Your task to perform on an android device: open app "DoorDash - Food Delivery" Image 0: 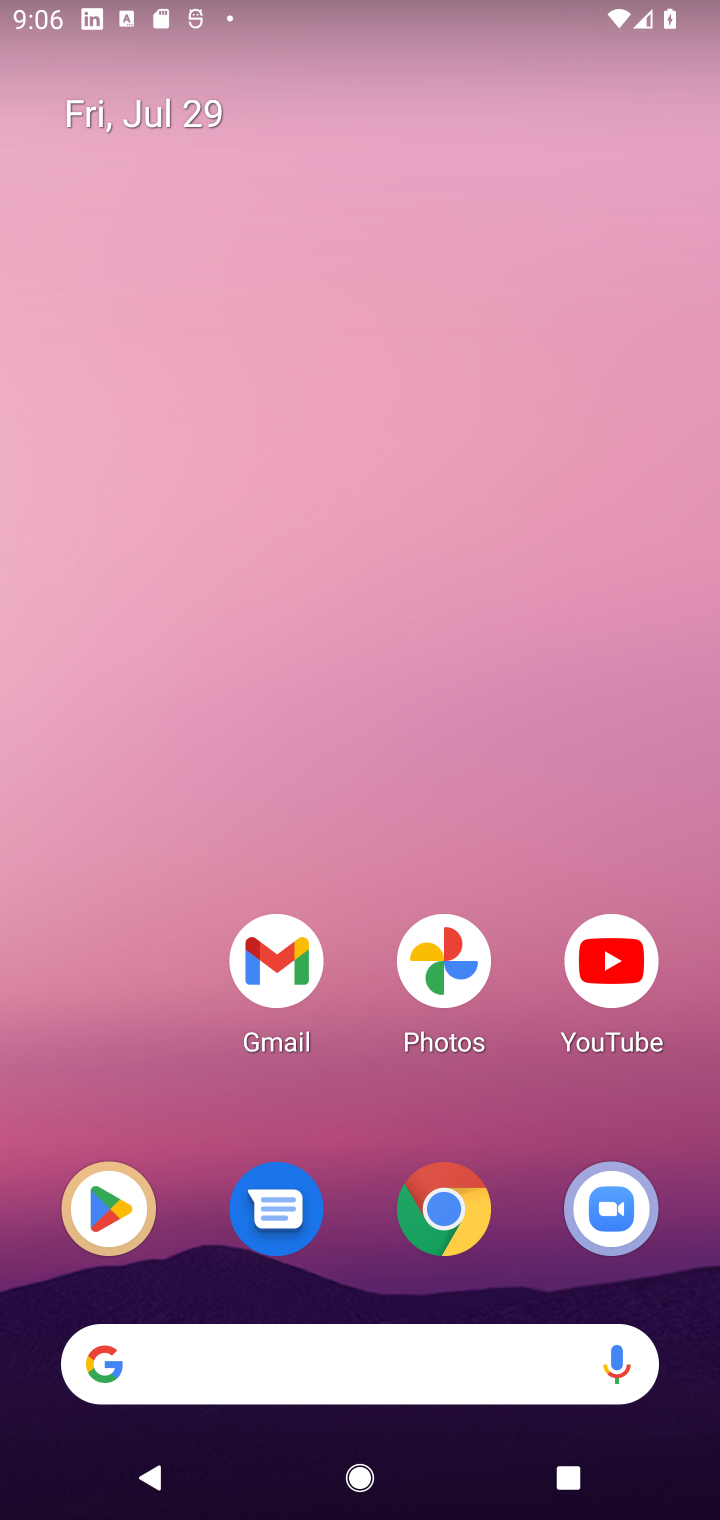
Step 0: click (108, 1202)
Your task to perform on an android device: open app "DoorDash - Food Delivery" Image 1: 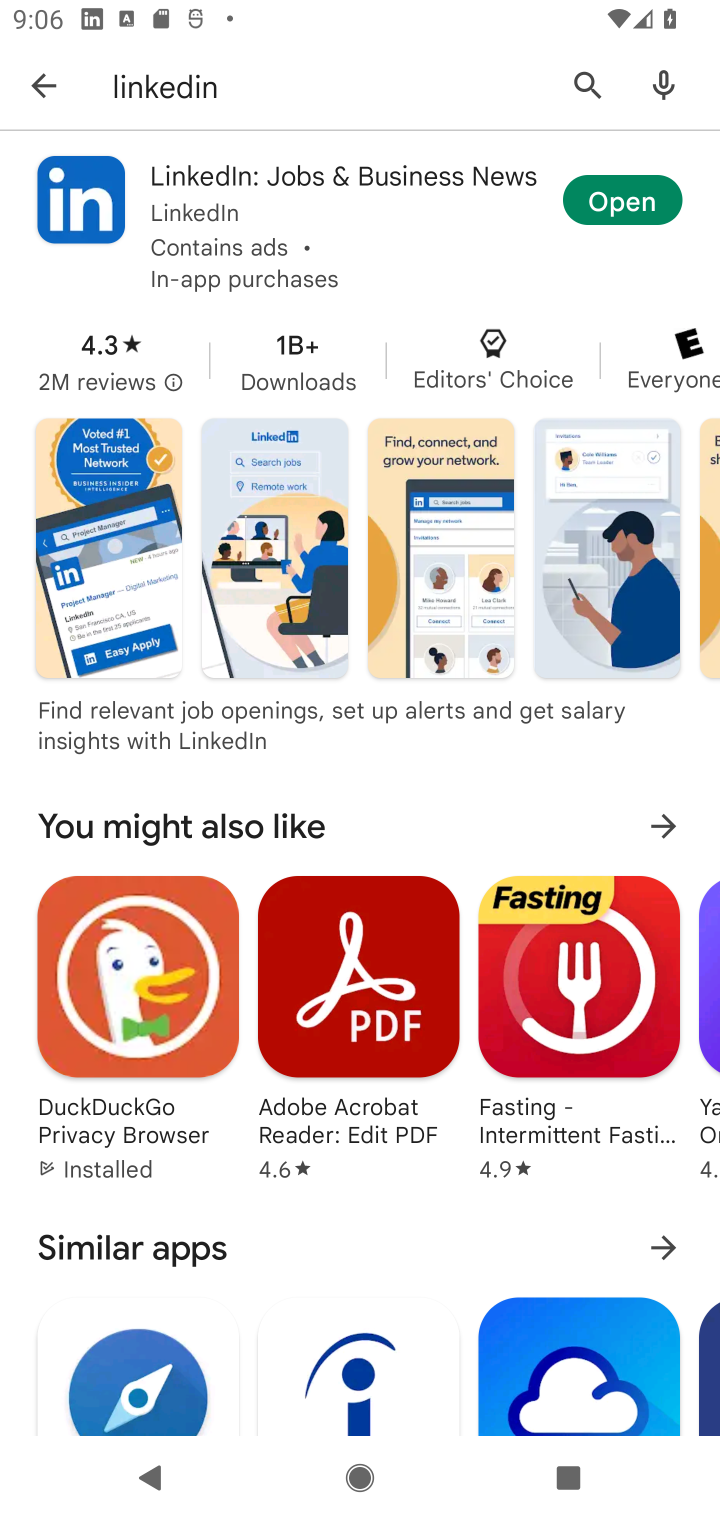
Step 1: click (590, 87)
Your task to perform on an android device: open app "DoorDash - Food Delivery" Image 2: 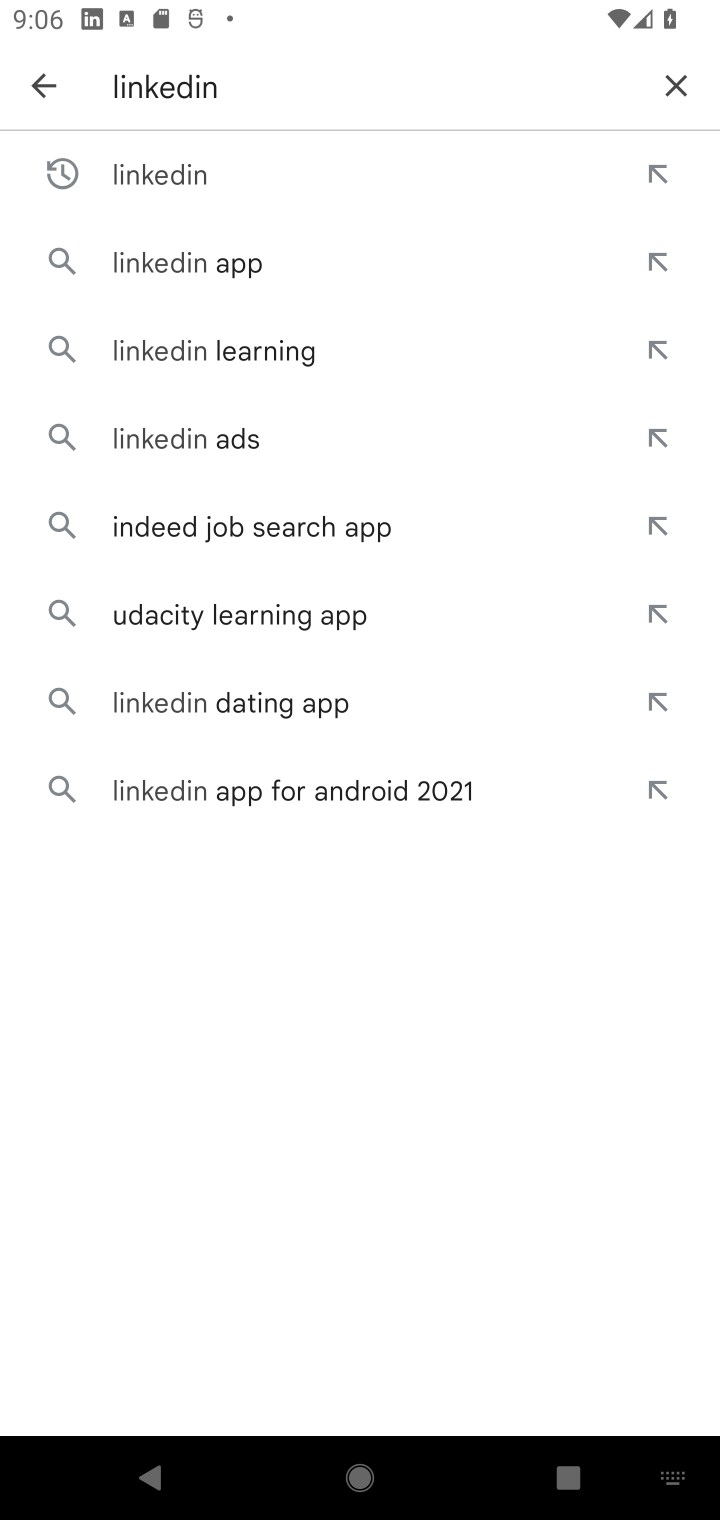
Step 2: click (670, 81)
Your task to perform on an android device: open app "DoorDash - Food Delivery" Image 3: 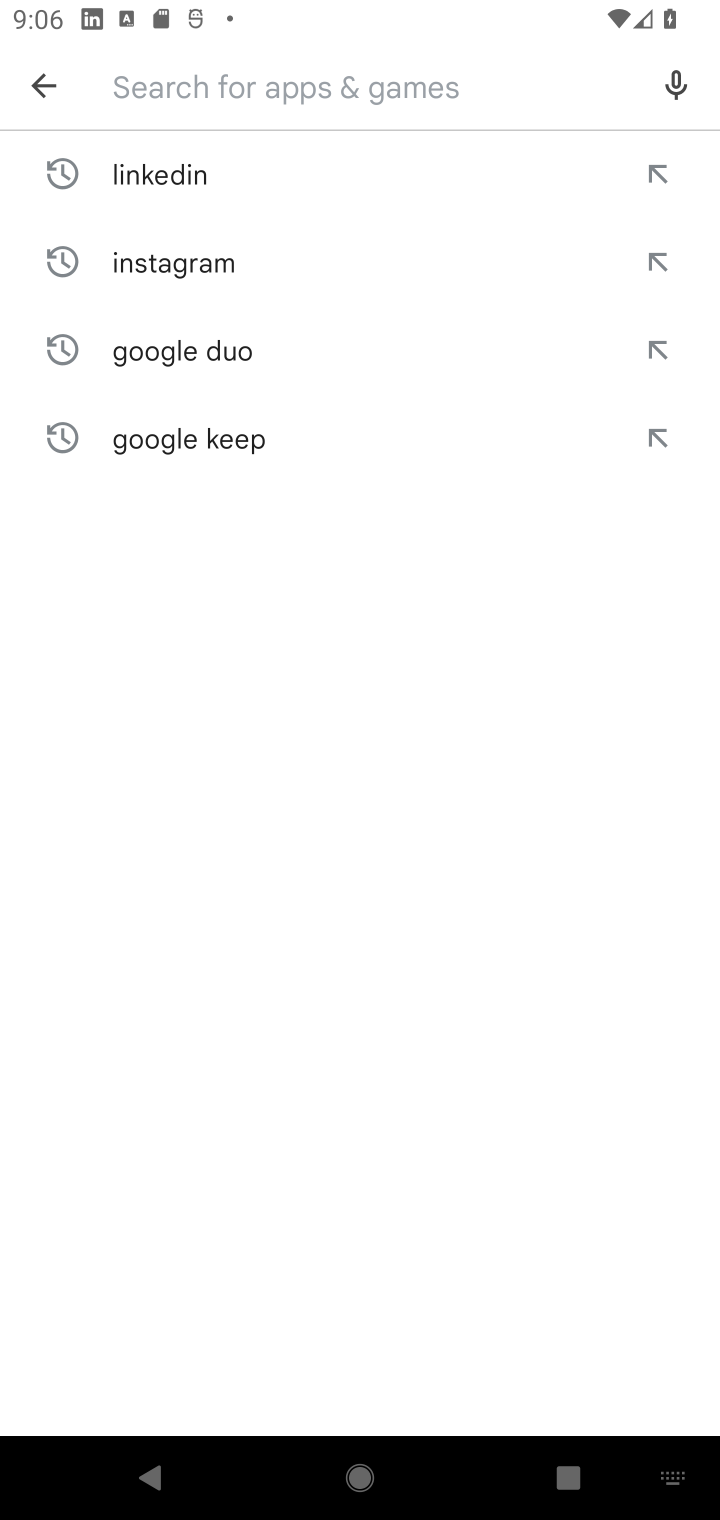
Step 3: type "DoorDash - Food Delivery"
Your task to perform on an android device: open app "DoorDash - Food Delivery" Image 4: 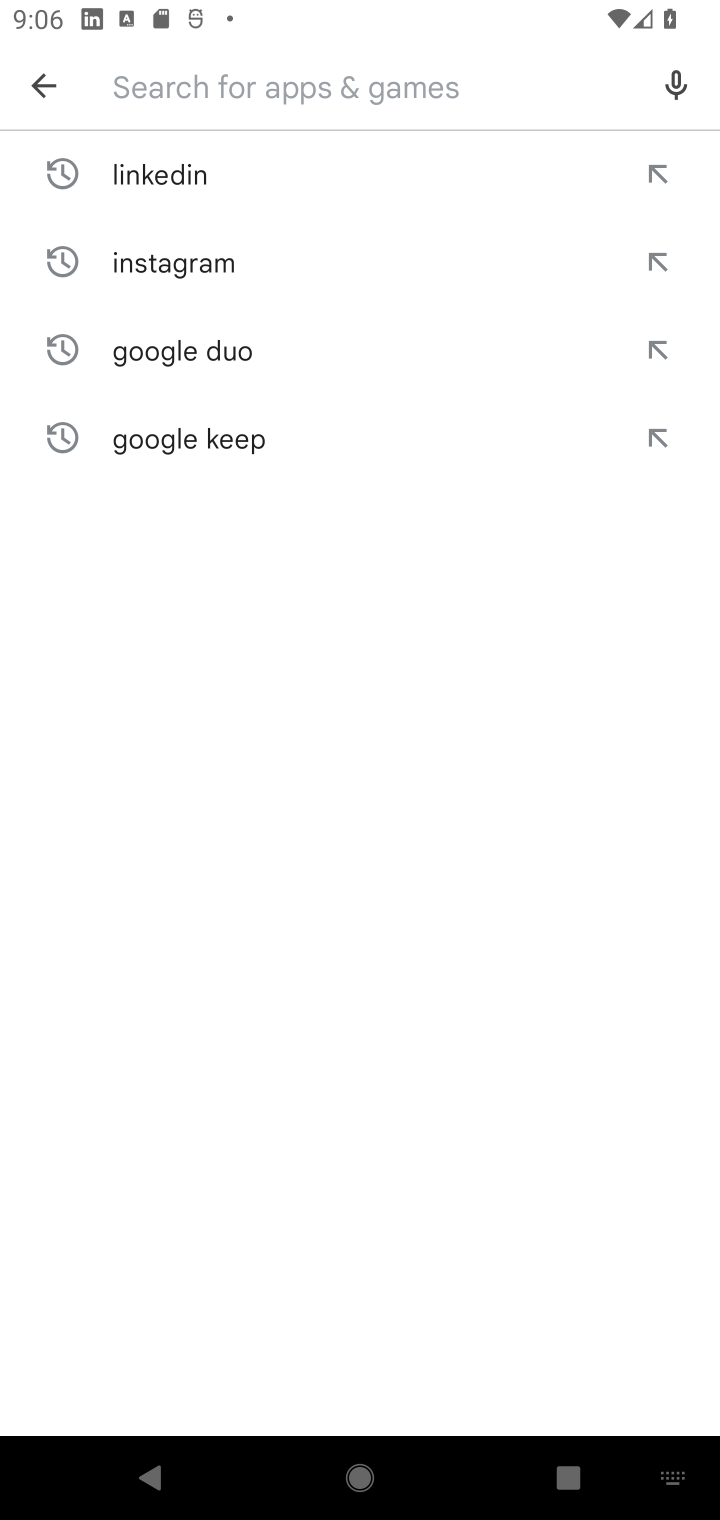
Step 4: click (273, 85)
Your task to perform on an android device: open app "DoorDash - Food Delivery" Image 5: 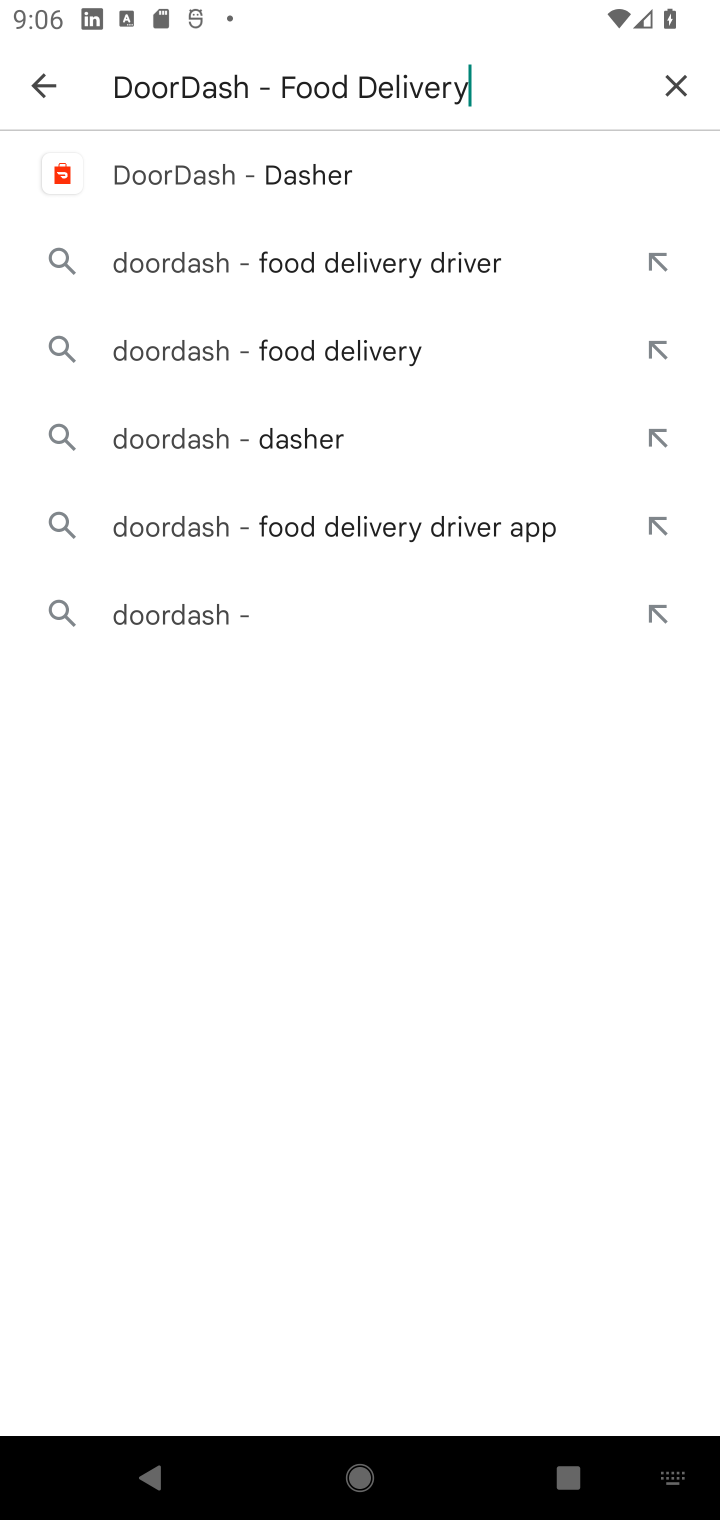
Step 5: type "DoorDash - Food Delivery"
Your task to perform on an android device: open app "DoorDash - Food Delivery" Image 6: 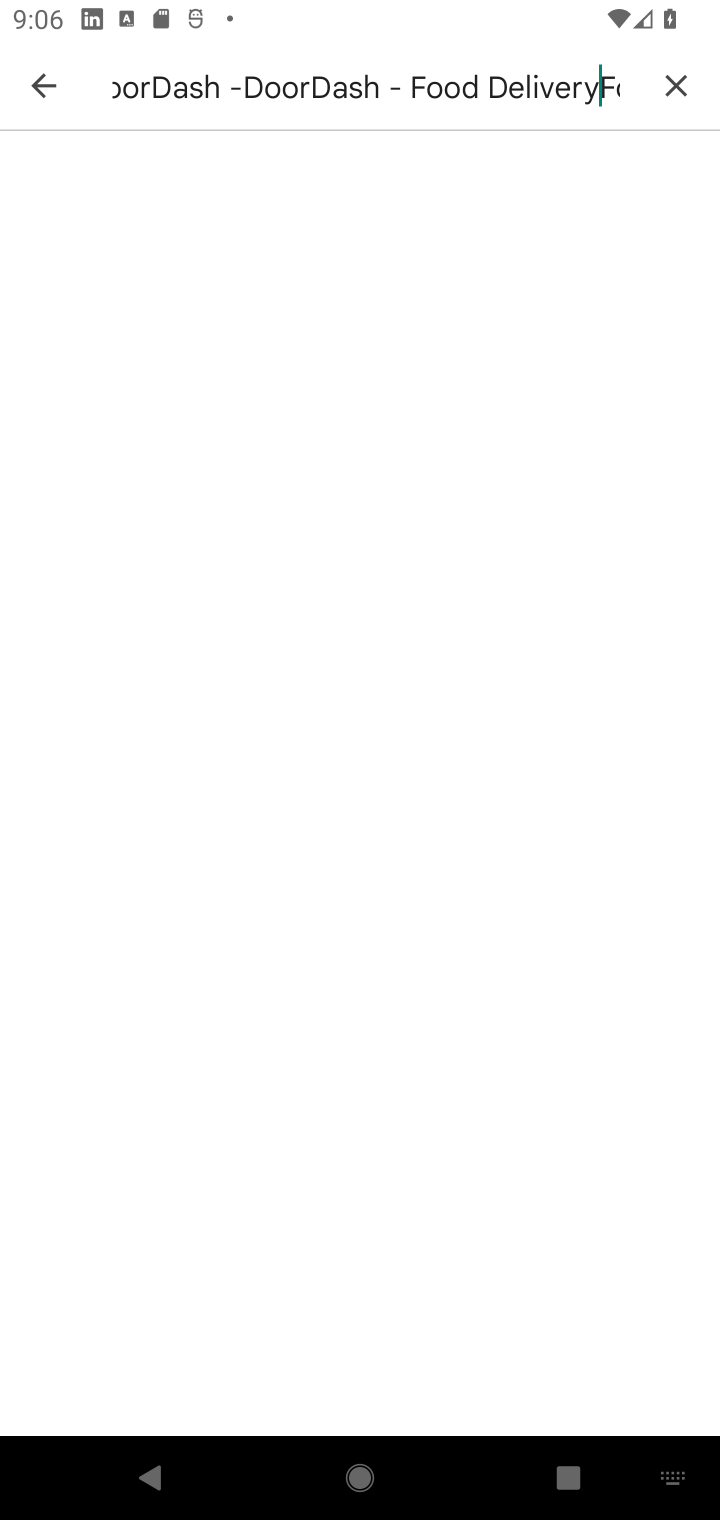
Step 6: click (681, 87)
Your task to perform on an android device: open app "DoorDash - Food Delivery" Image 7: 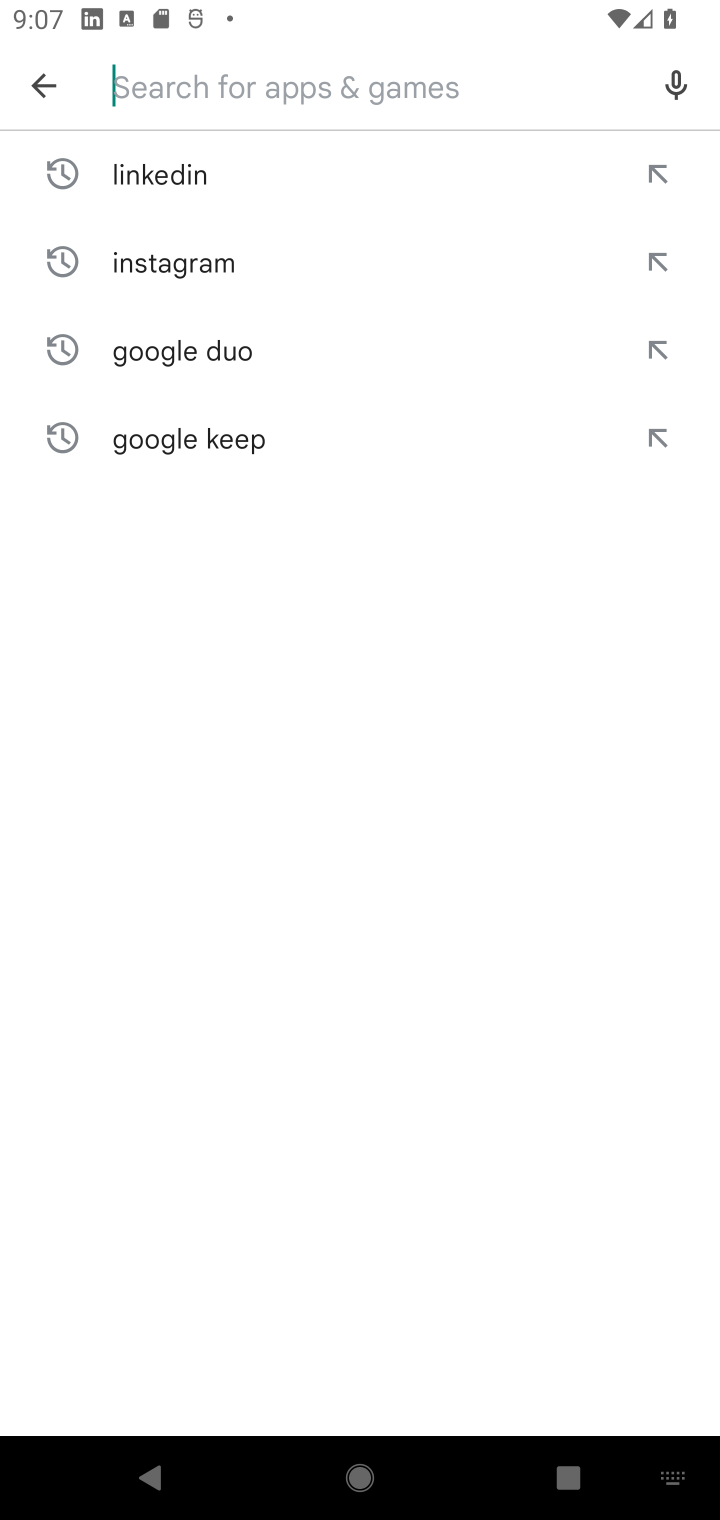
Step 7: click (218, 90)
Your task to perform on an android device: open app "DoorDash - Food Delivery" Image 8: 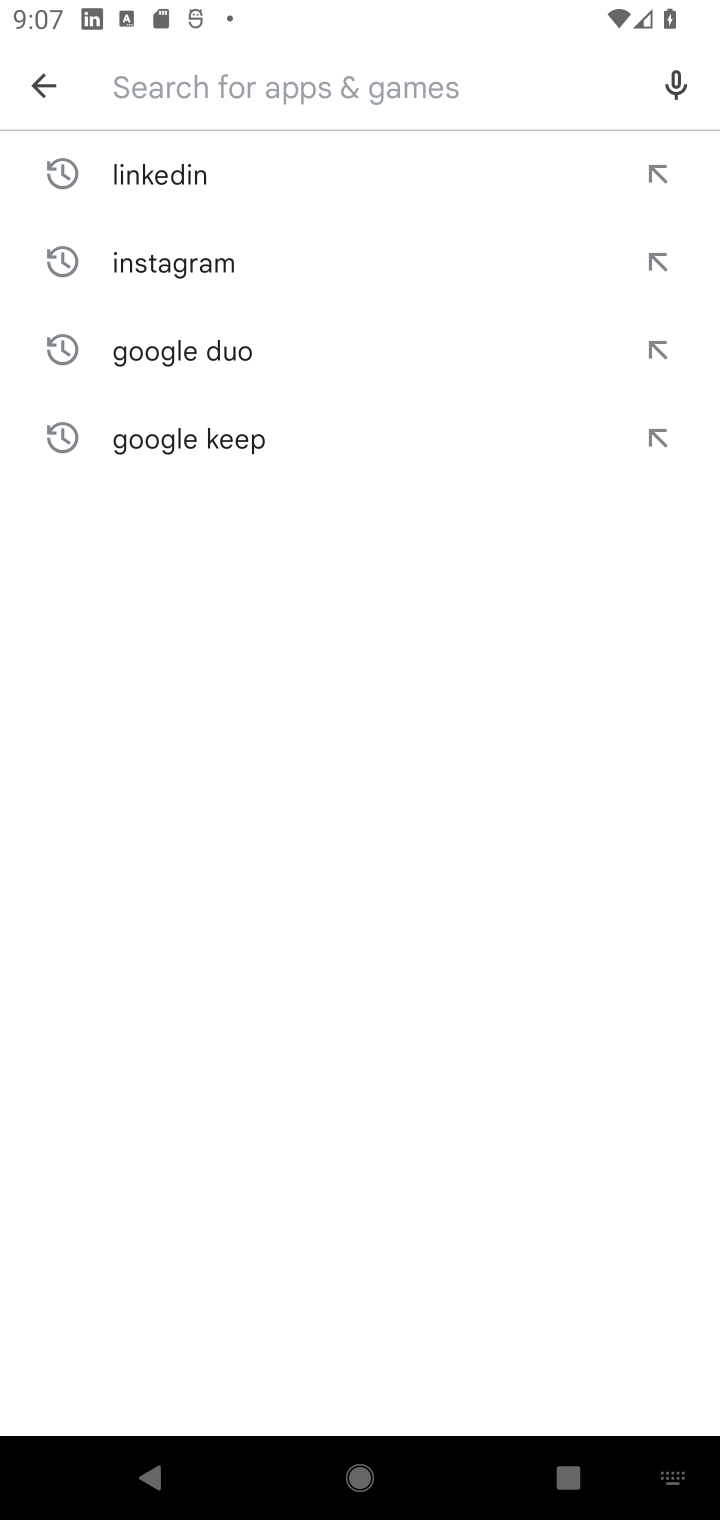
Step 8: type "DoorDash - Food Delivery"
Your task to perform on an android device: open app "DoorDash - Food Delivery" Image 9: 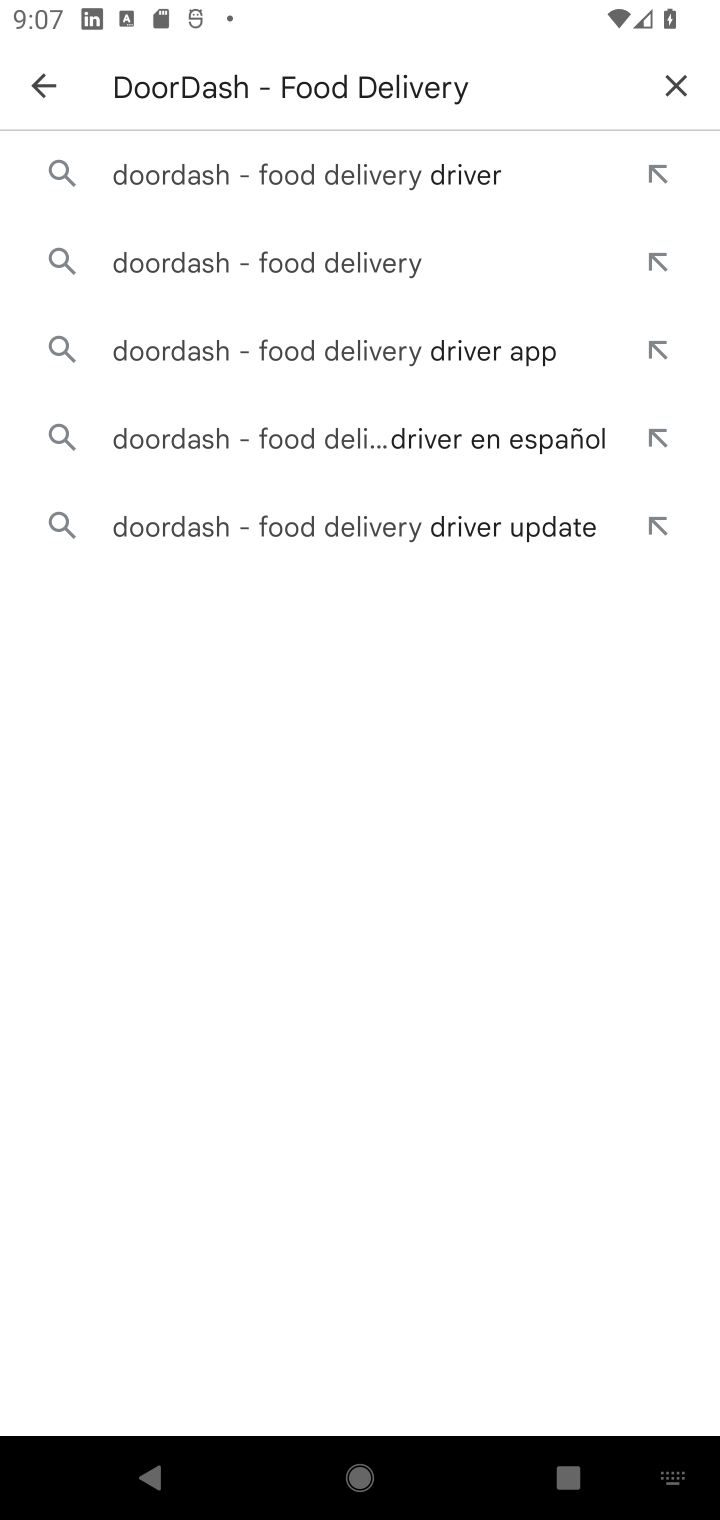
Step 9: click (248, 279)
Your task to perform on an android device: open app "DoorDash - Food Delivery" Image 10: 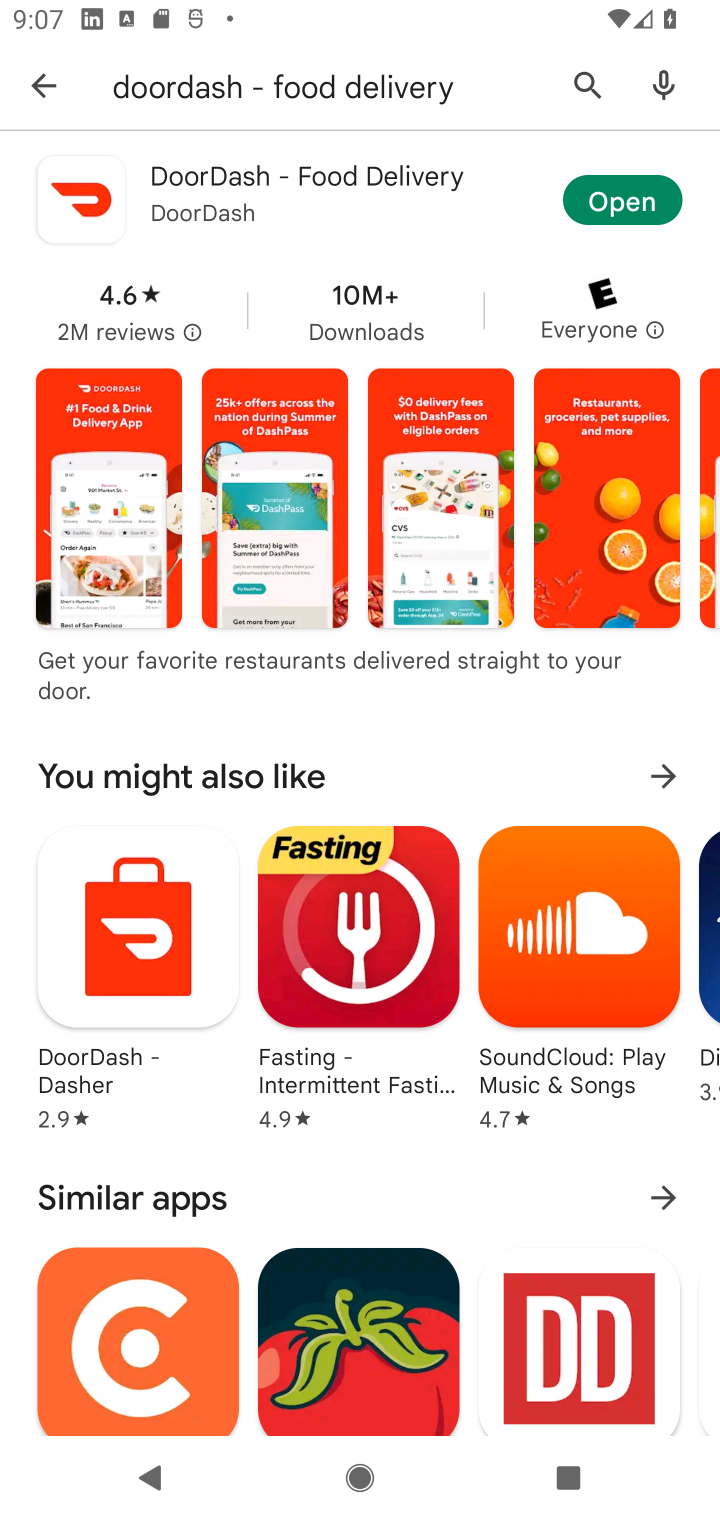
Step 10: click (636, 208)
Your task to perform on an android device: open app "DoorDash - Food Delivery" Image 11: 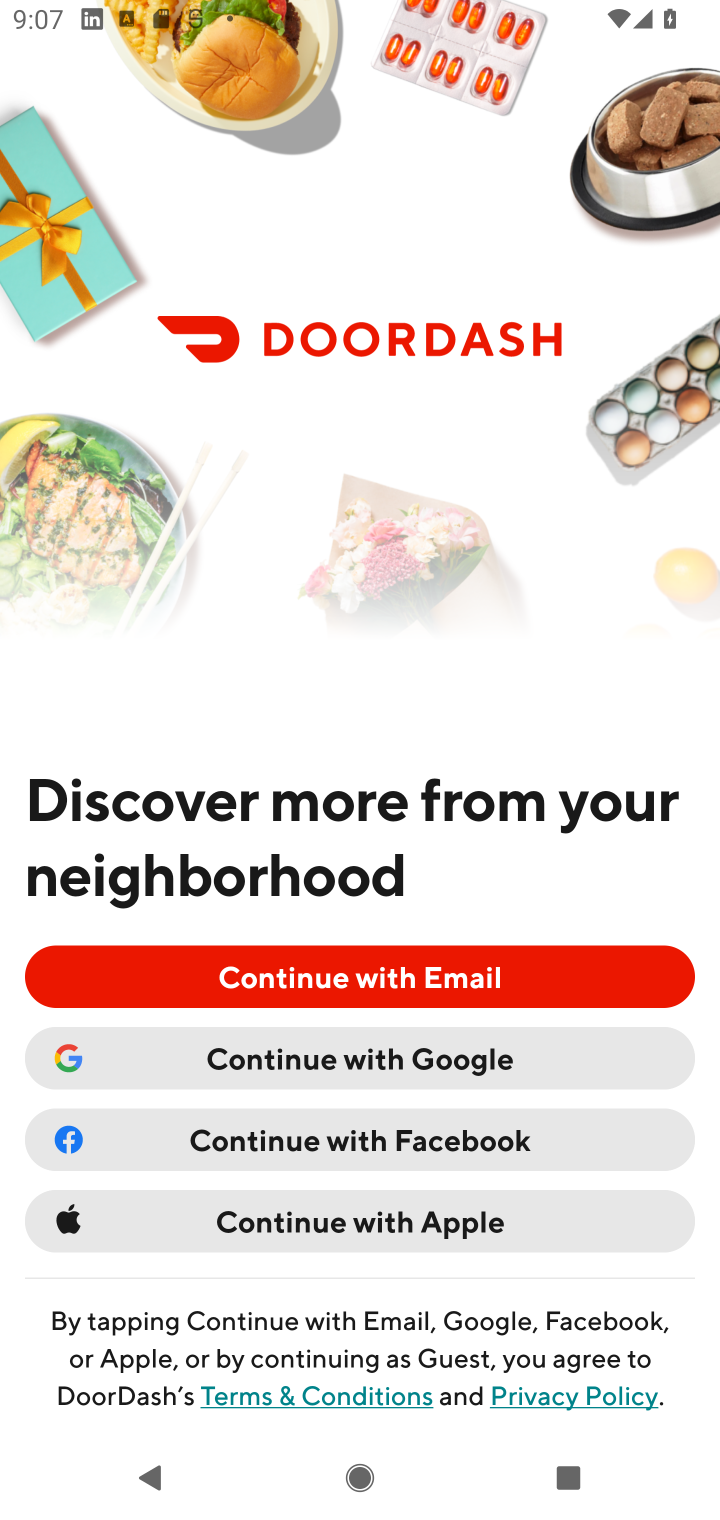
Step 11: task complete